Your task to perform on an android device: turn off picture-in-picture Image 0: 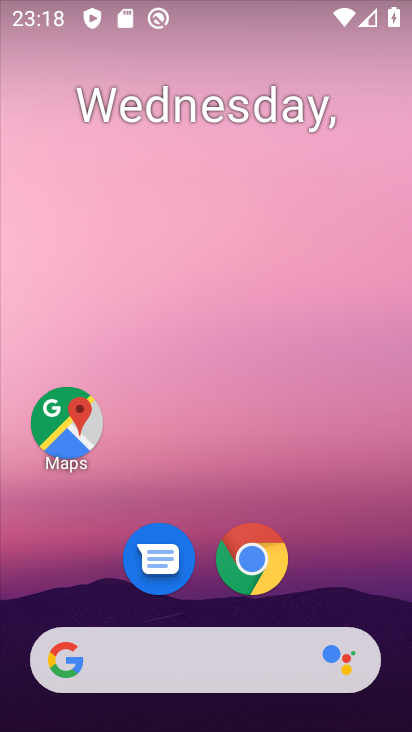
Step 0: drag from (205, 539) to (212, 167)
Your task to perform on an android device: turn off picture-in-picture Image 1: 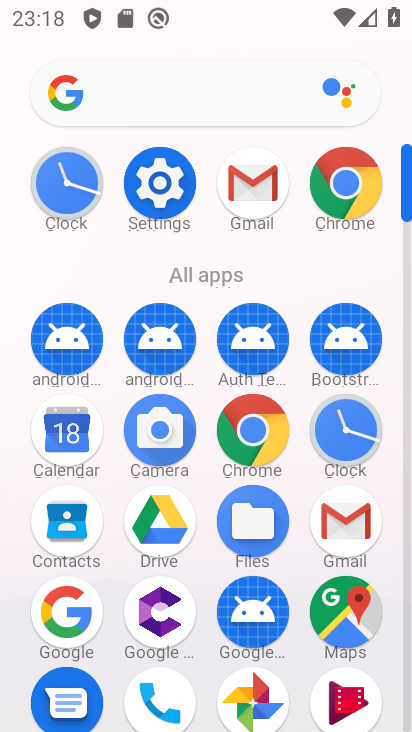
Step 1: click (162, 186)
Your task to perform on an android device: turn off picture-in-picture Image 2: 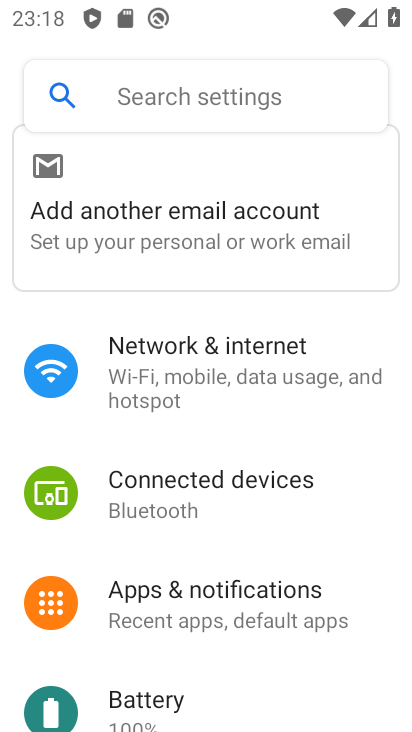
Step 2: click (213, 603)
Your task to perform on an android device: turn off picture-in-picture Image 3: 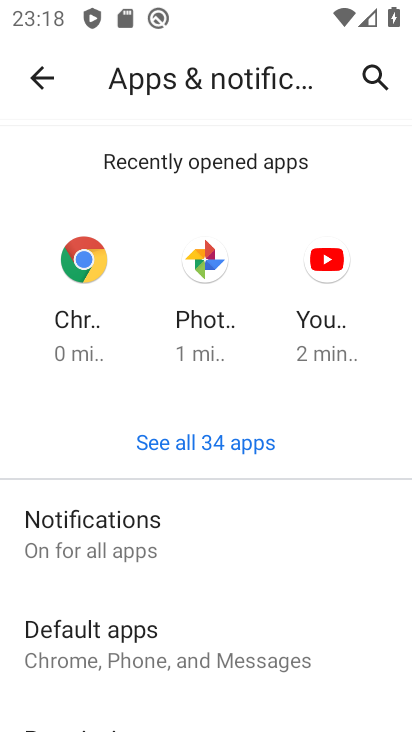
Step 3: drag from (198, 567) to (175, 196)
Your task to perform on an android device: turn off picture-in-picture Image 4: 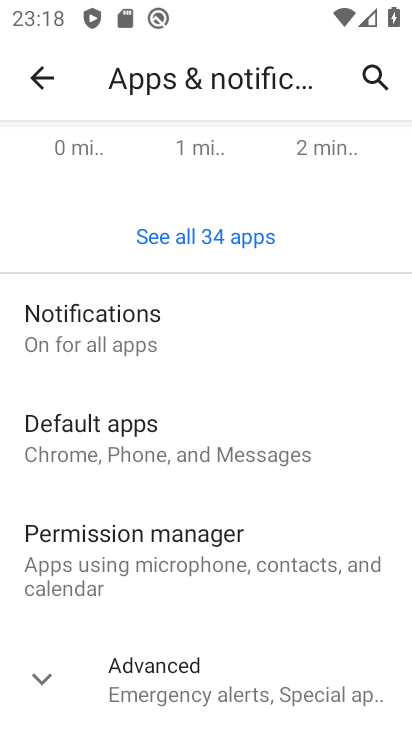
Step 4: click (44, 669)
Your task to perform on an android device: turn off picture-in-picture Image 5: 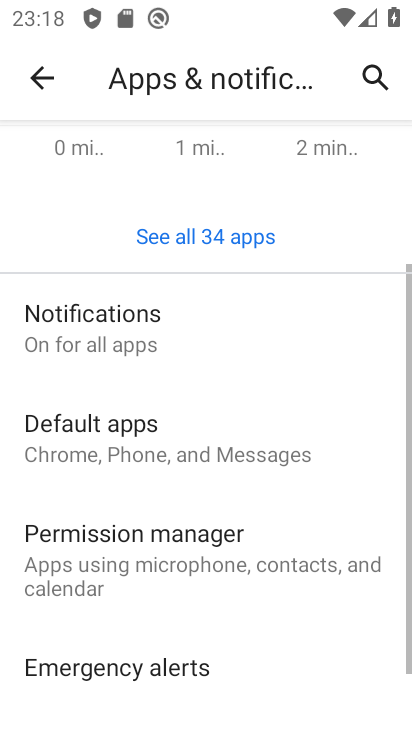
Step 5: drag from (117, 623) to (125, 230)
Your task to perform on an android device: turn off picture-in-picture Image 6: 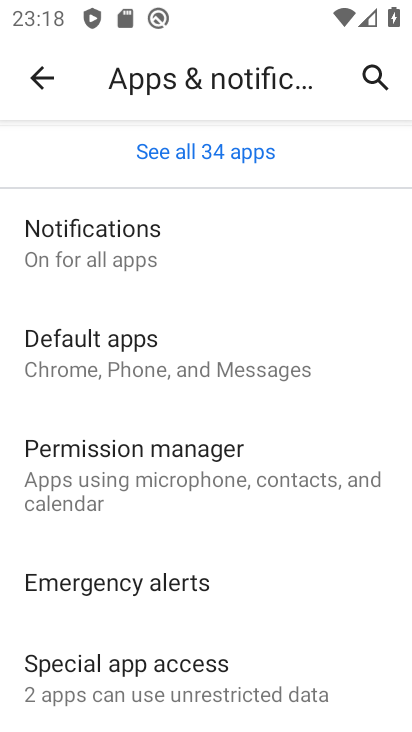
Step 6: click (193, 682)
Your task to perform on an android device: turn off picture-in-picture Image 7: 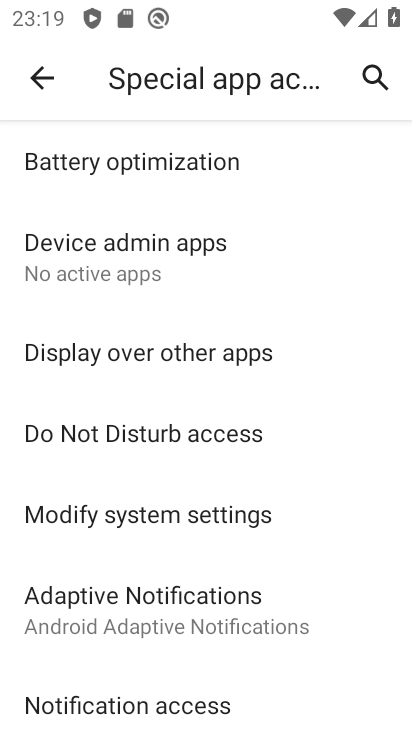
Step 7: drag from (143, 663) to (195, 213)
Your task to perform on an android device: turn off picture-in-picture Image 8: 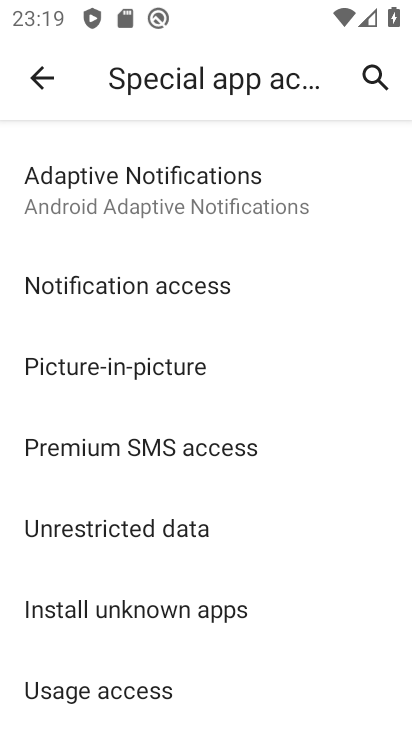
Step 8: drag from (152, 664) to (165, 577)
Your task to perform on an android device: turn off picture-in-picture Image 9: 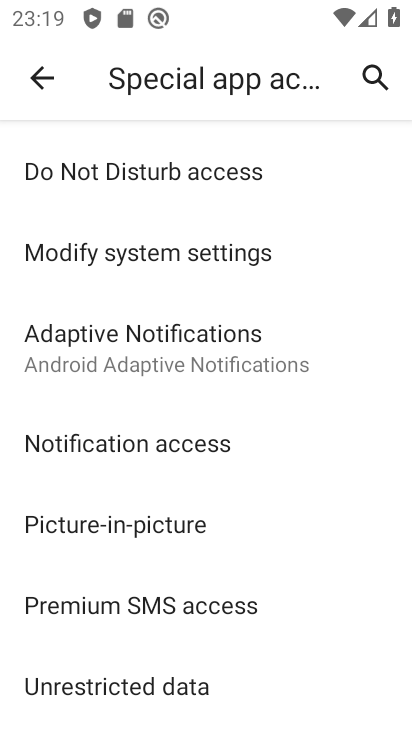
Step 9: click (120, 512)
Your task to perform on an android device: turn off picture-in-picture Image 10: 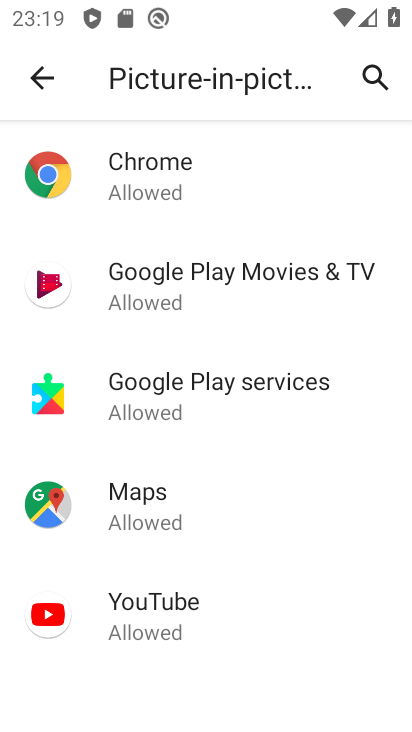
Step 10: click (200, 190)
Your task to perform on an android device: turn off picture-in-picture Image 11: 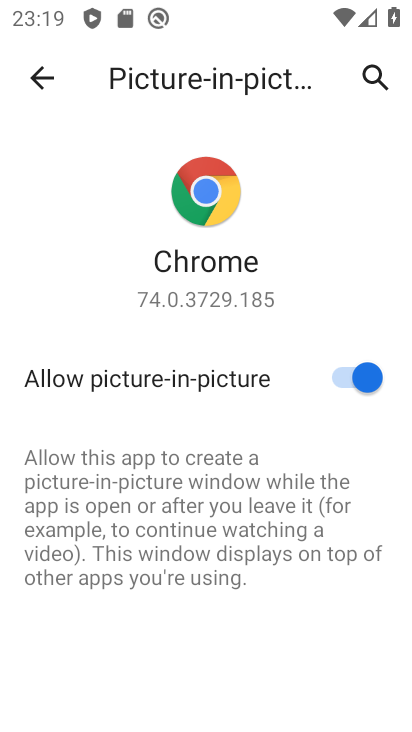
Step 11: click (348, 381)
Your task to perform on an android device: turn off picture-in-picture Image 12: 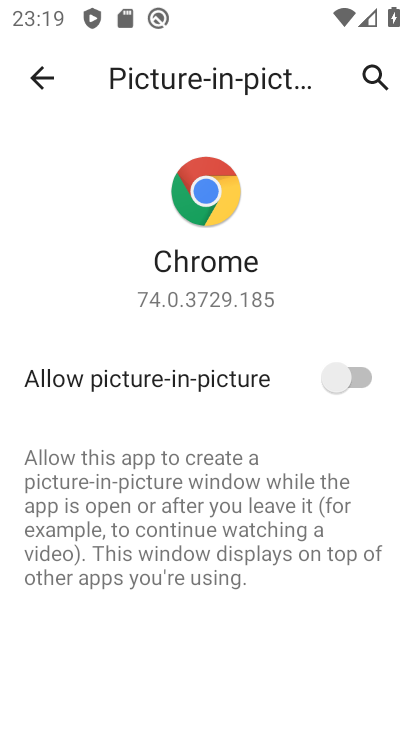
Step 12: task complete